Your task to perform on an android device: turn vacation reply on in the gmail app Image 0: 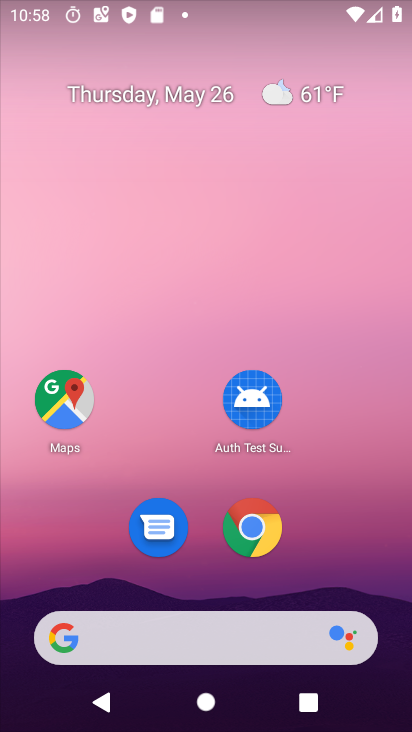
Step 0: drag from (371, 524) to (368, 118)
Your task to perform on an android device: turn vacation reply on in the gmail app Image 1: 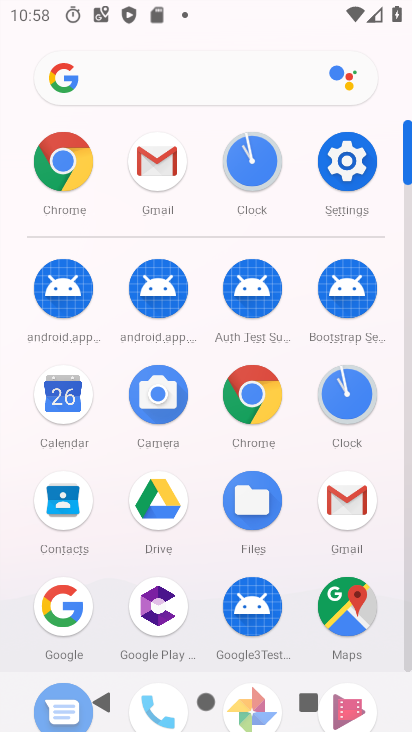
Step 1: click (158, 169)
Your task to perform on an android device: turn vacation reply on in the gmail app Image 2: 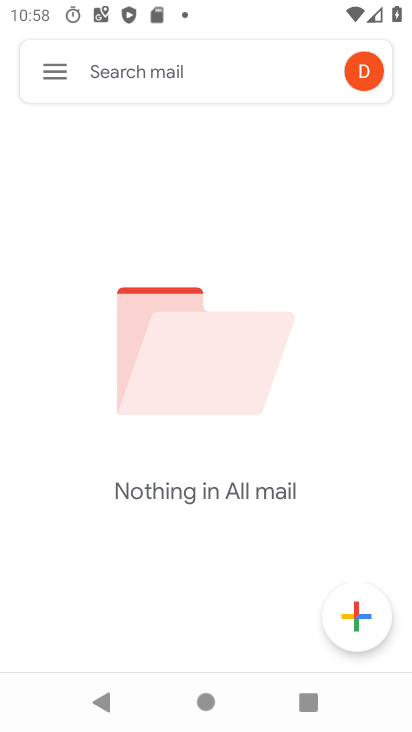
Step 2: click (38, 86)
Your task to perform on an android device: turn vacation reply on in the gmail app Image 3: 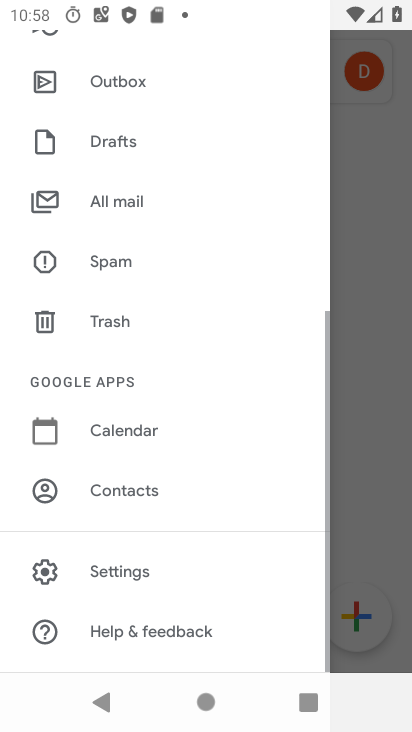
Step 3: drag from (171, 528) to (235, 154)
Your task to perform on an android device: turn vacation reply on in the gmail app Image 4: 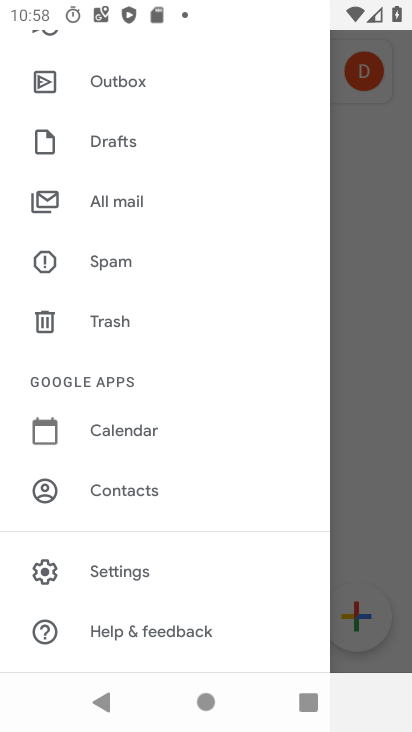
Step 4: click (131, 569)
Your task to perform on an android device: turn vacation reply on in the gmail app Image 5: 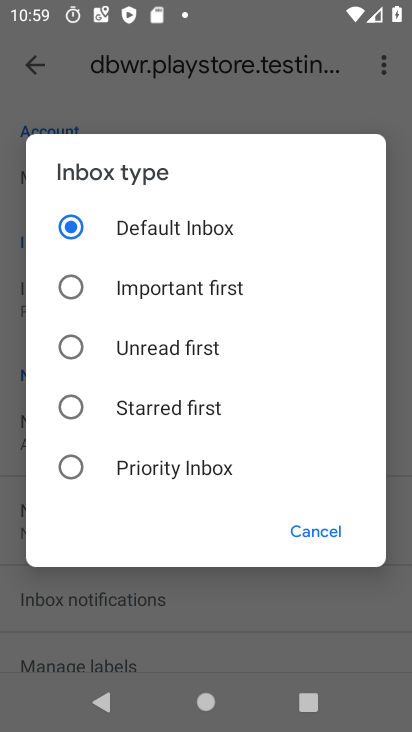
Step 5: click (314, 538)
Your task to perform on an android device: turn vacation reply on in the gmail app Image 6: 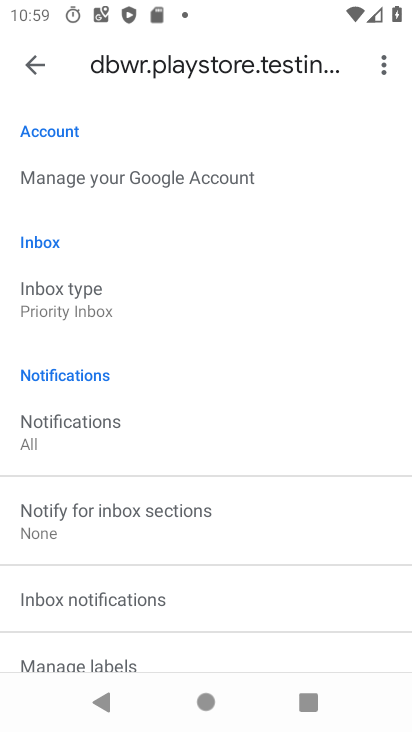
Step 6: drag from (196, 613) to (234, 316)
Your task to perform on an android device: turn vacation reply on in the gmail app Image 7: 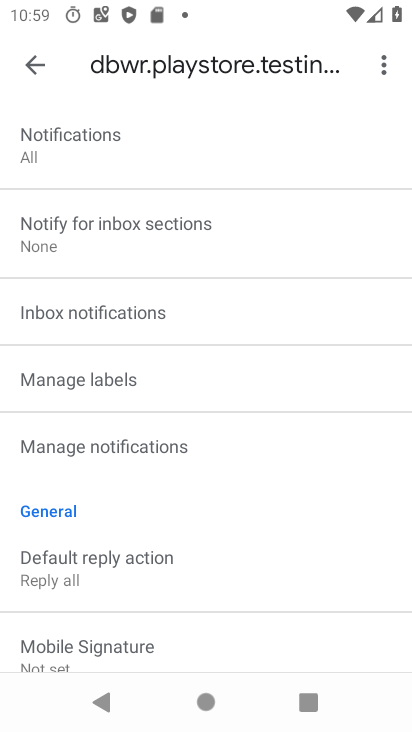
Step 7: drag from (209, 603) to (222, 285)
Your task to perform on an android device: turn vacation reply on in the gmail app Image 8: 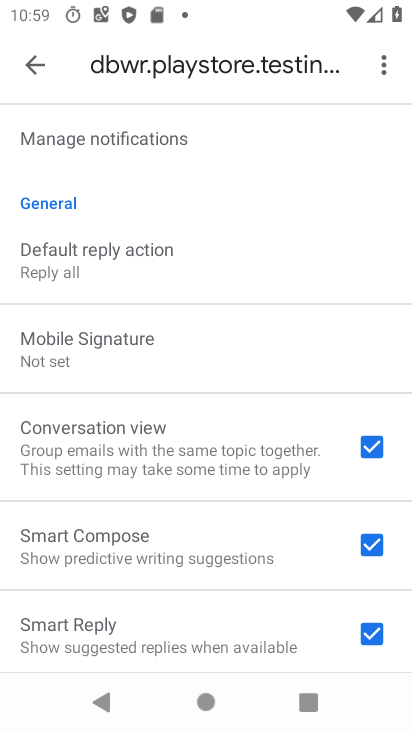
Step 8: drag from (230, 612) to (260, 297)
Your task to perform on an android device: turn vacation reply on in the gmail app Image 9: 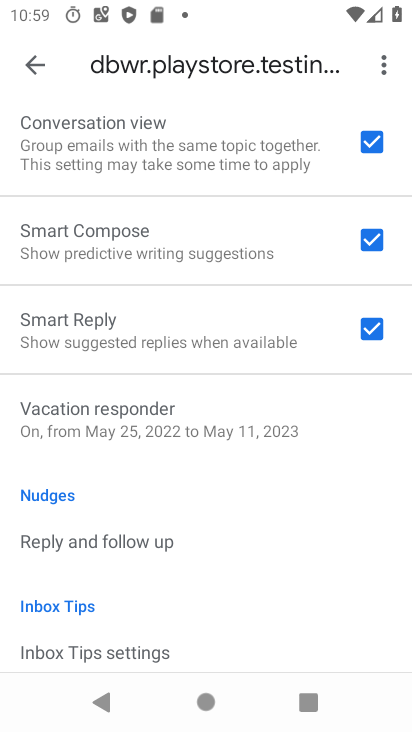
Step 9: click (213, 428)
Your task to perform on an android device: turn vacation reply on in the gmail app Image 10: 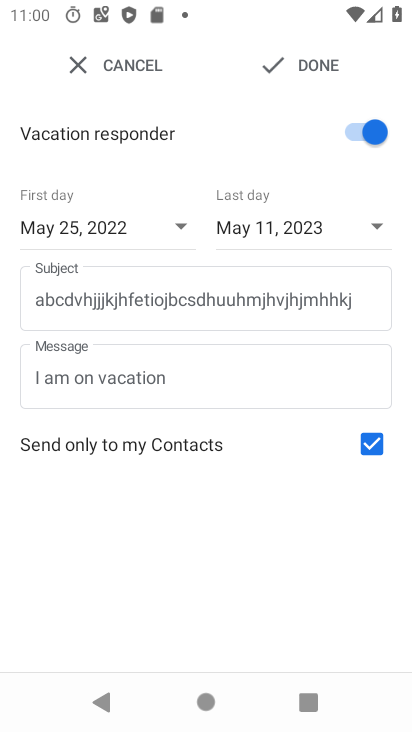
Step 10: task complete